Your task to perform on an android device: set the timer Image 0: 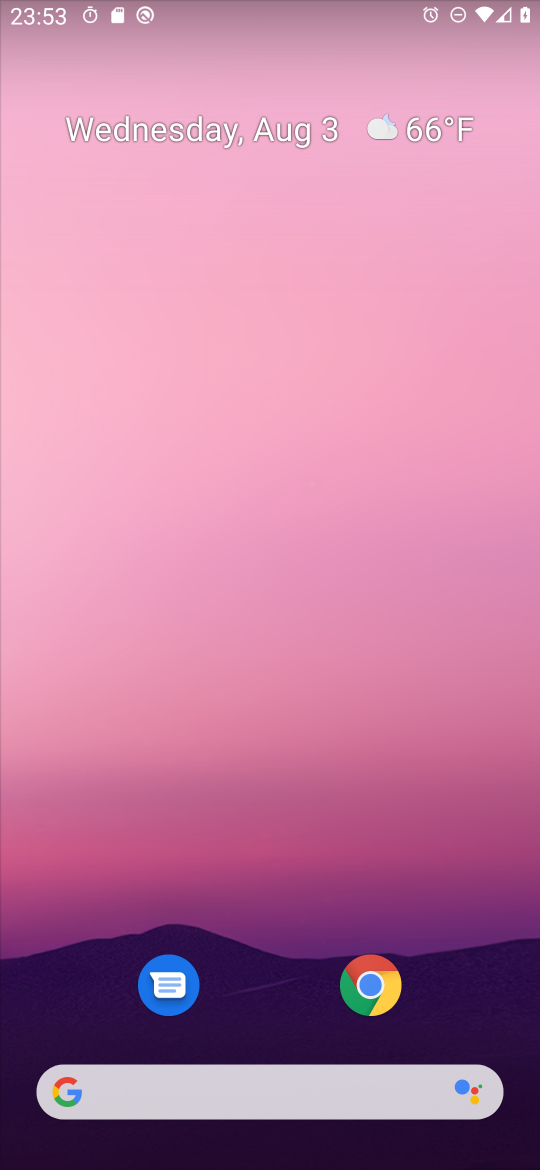
Step 0: drag from (281, 1014) to (300, 126)
Your task to perform on an android device: set the timer Image 1: 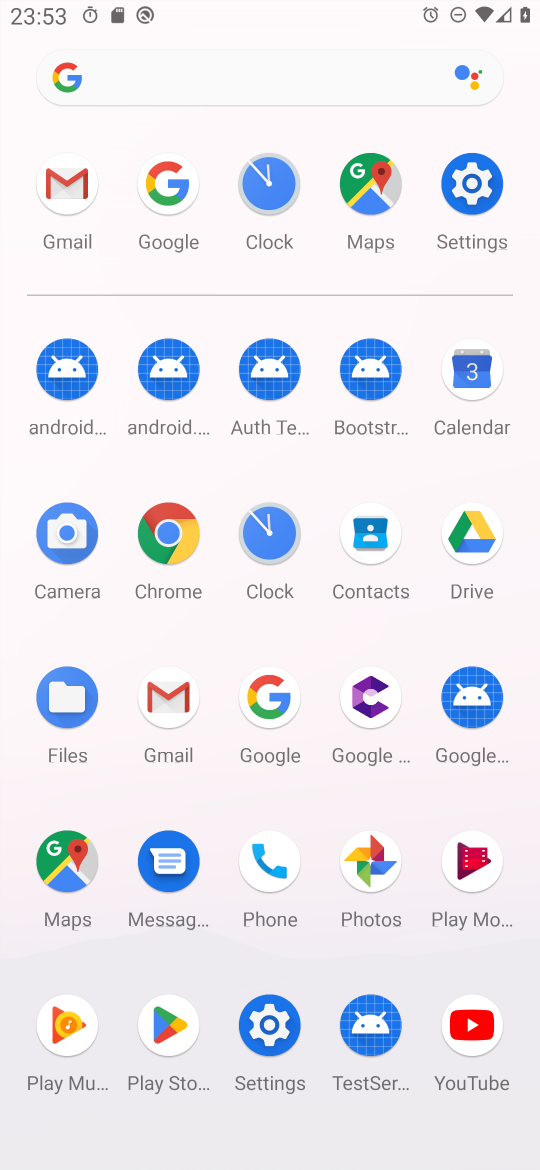
Step 1: click (283, 165)
Your task to perform on an android device: set the timer Image 2: 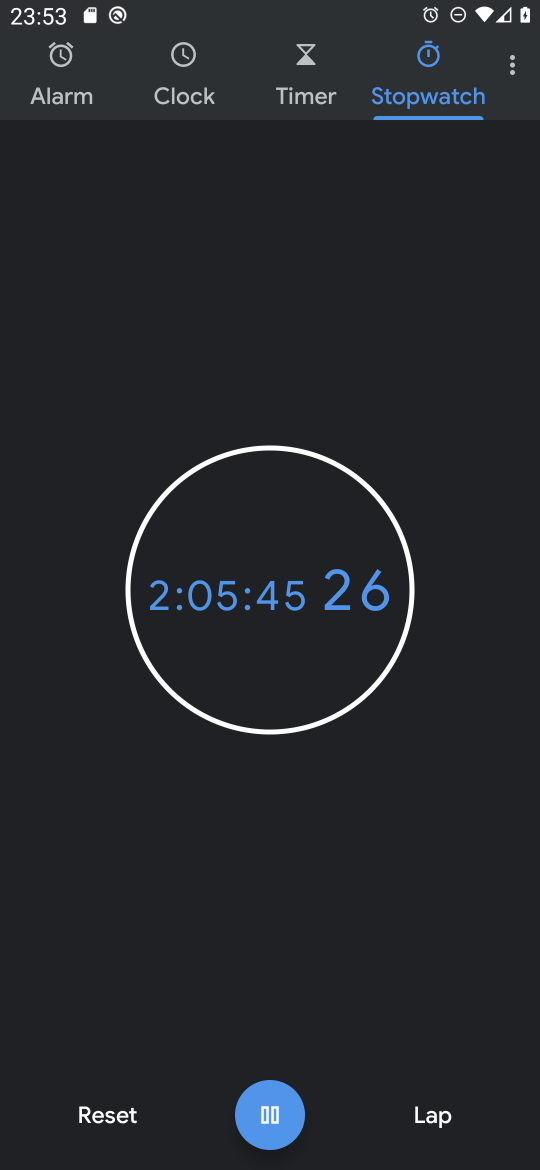
Step 2: click (290, 97)
Your task to perform on an android device: set the timer Image 3: 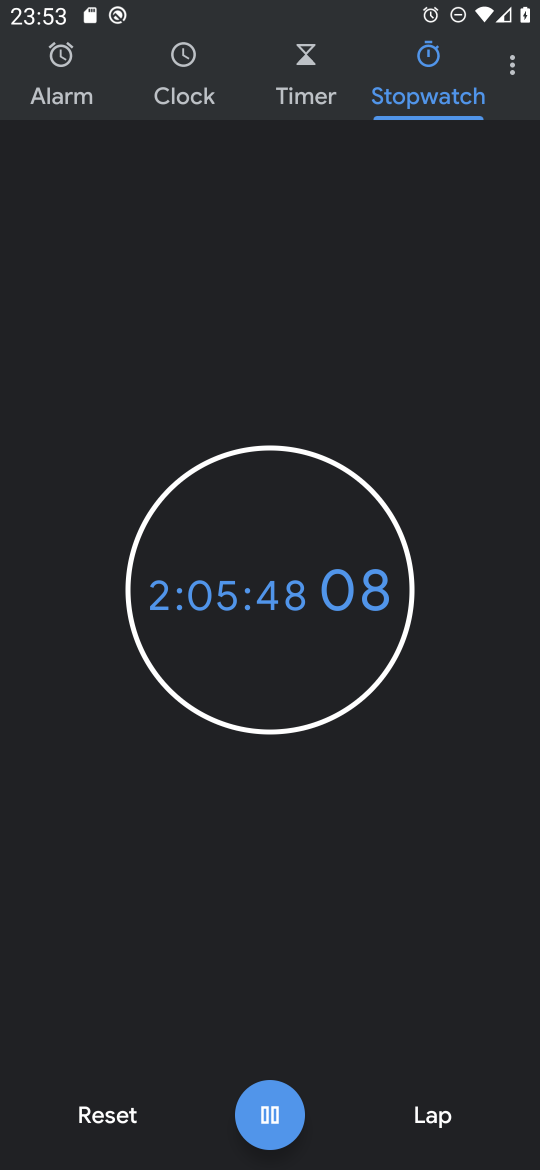
Step 3: click (295, 65)
Your task to perform on an android device: set the timer Image 4: 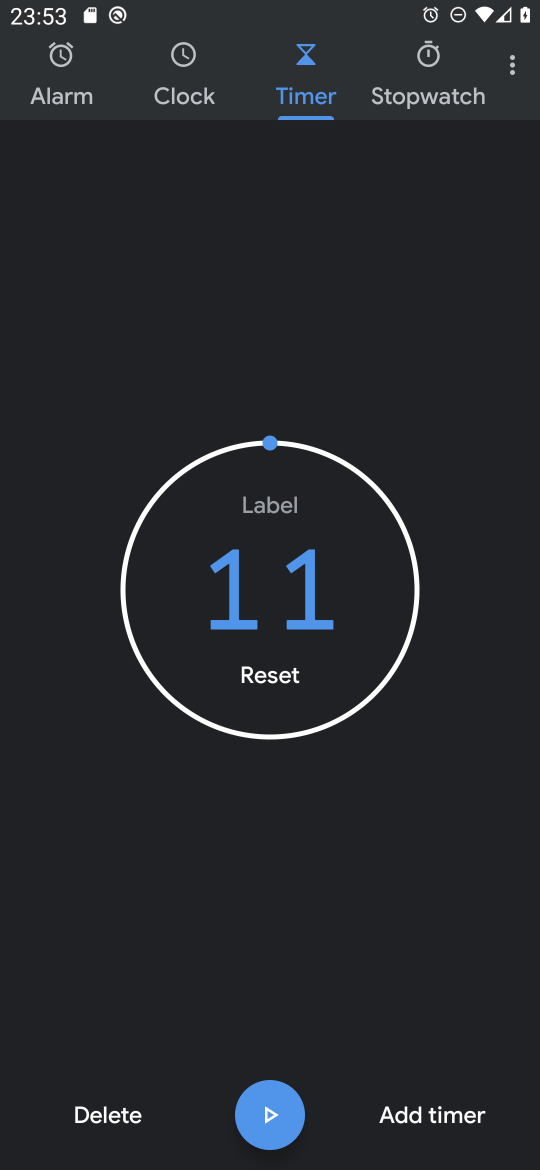
Step 4: click (290, 1090)
Your task to perform on an android device: set the timer Image 5: 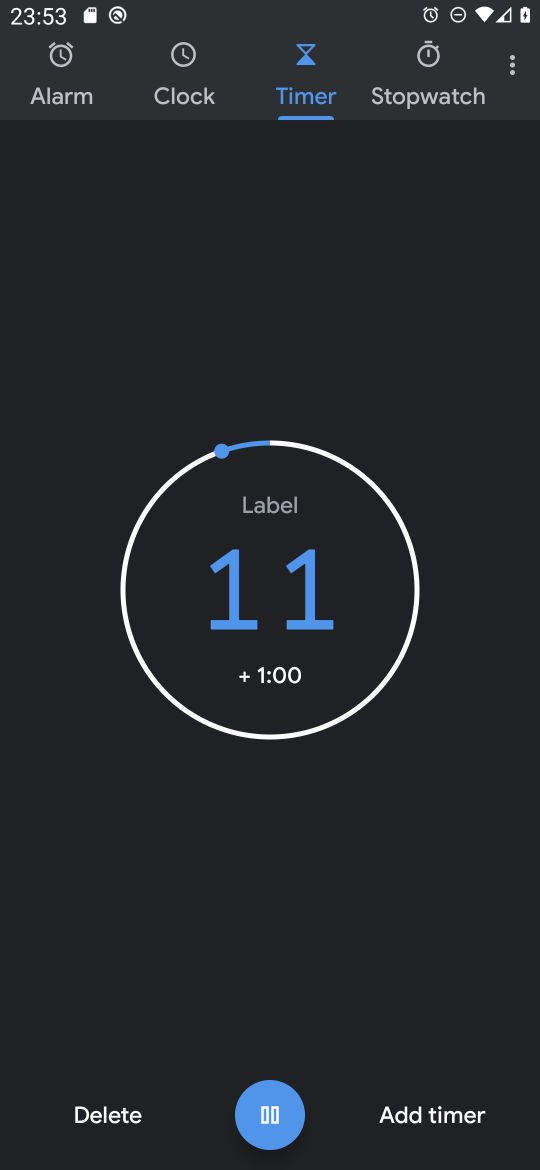
Step 5: task complete